Your task to perform on an android device: search for starred emails in the gmail app Image 0: 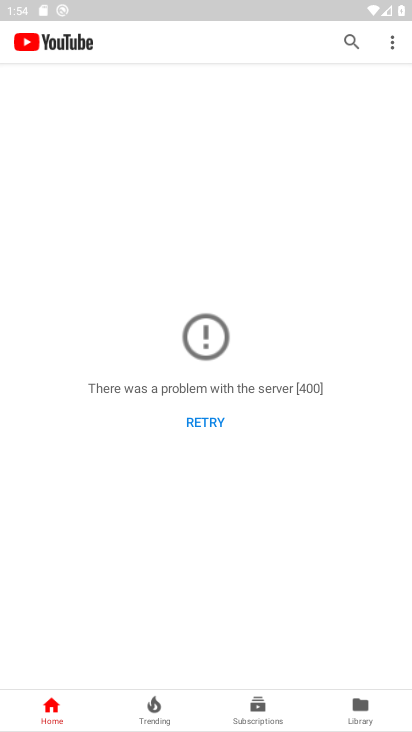
Step 0: press back button
Your task to perform on an android device: search for starred emails in the gmail app Image 1: 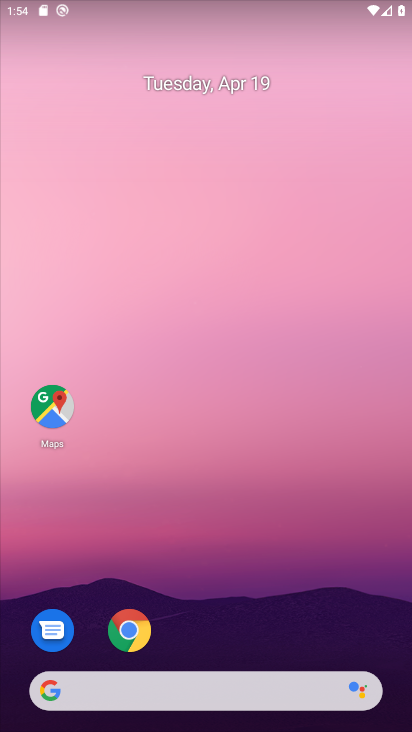
Step 1: drag from (292, 603) to (272, 93)
Your task to perform on an android device: search for starred emails in the gmail app Image 2: 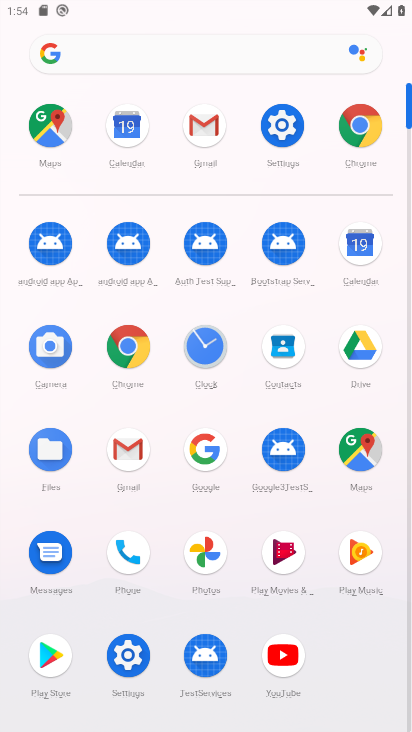
Step 2: click (137, 448)
Your task to perform on an android device: search for starred emails in the gmail app Image 3: 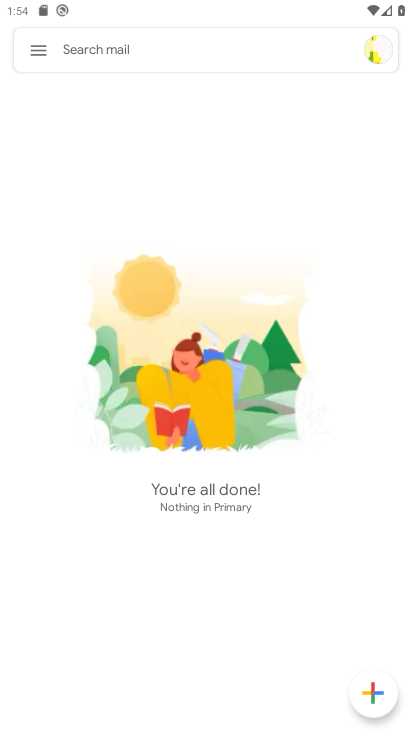
Step 3: click (46, 59)
Your task to perform on an android device: search for starred emails in the gmail app Image 4: 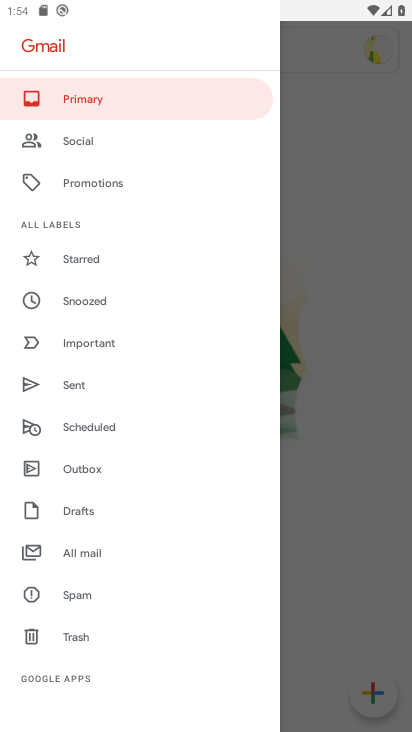
Step 4: click (156, 253)
Your task to perform on an android device: search for starred emails in the gmail app Image 5: 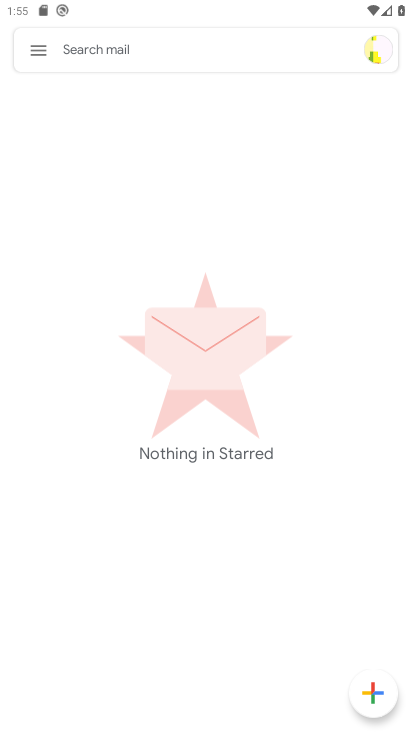
Step 5: task complete